Your task to perform on an android device: Go to notification settings Image 0: 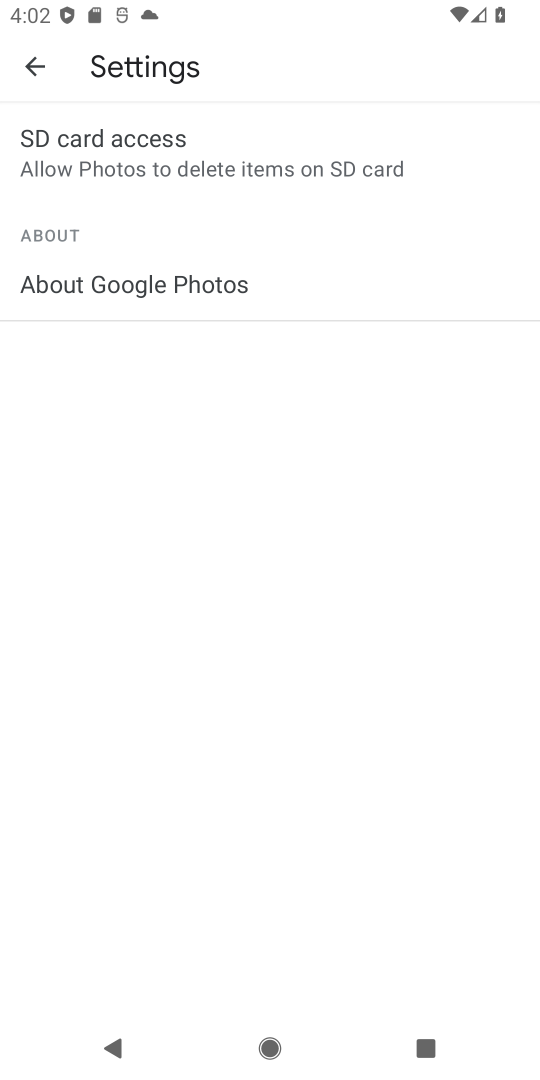
Step 0: press home button
Your task to perform on an android device: Go to notification settings Image 1: 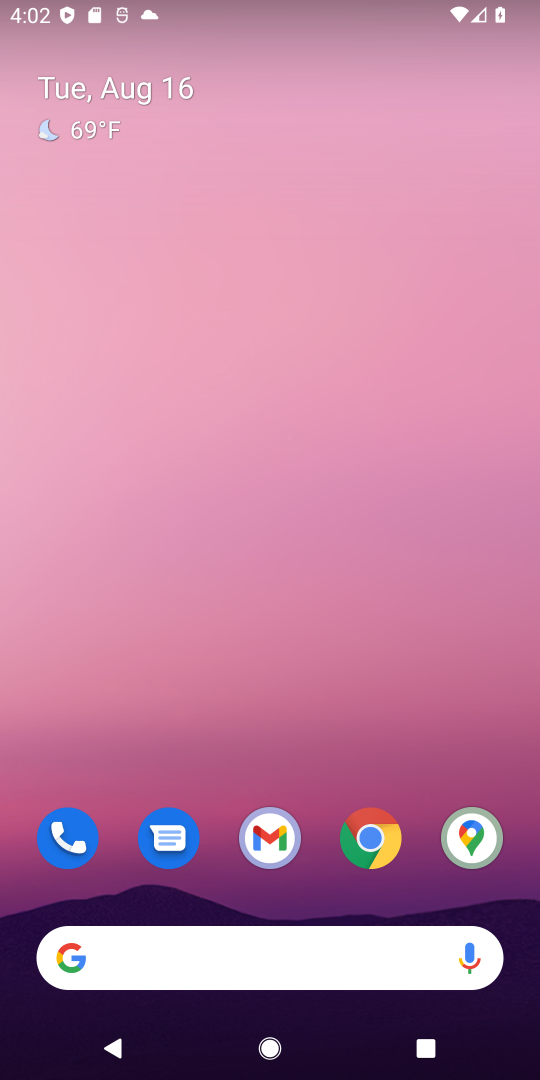
Step 1: drag from (275, 939) to (317, 14)
Your task to perform on an android device: Go to notification settings Image 2: 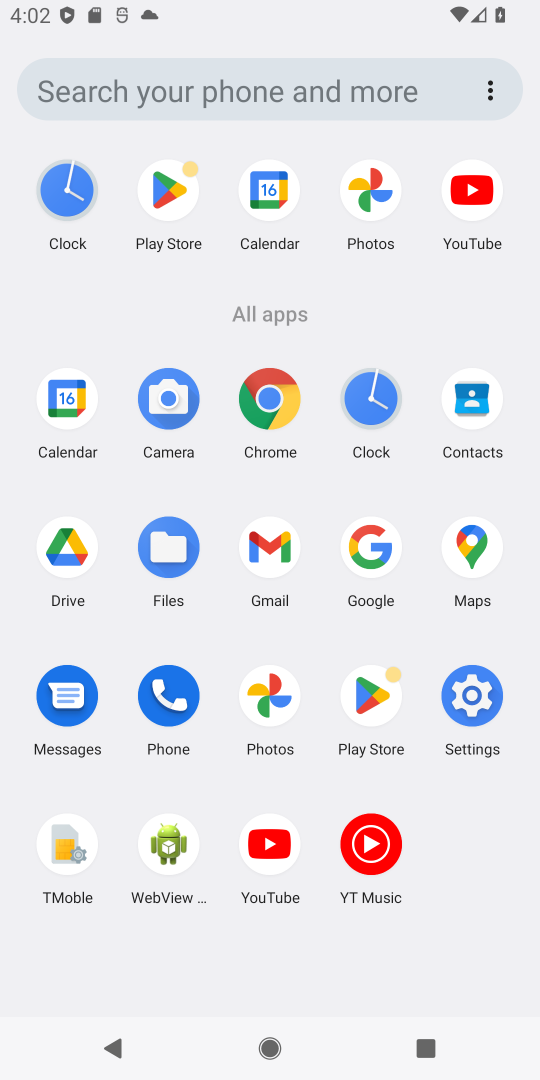
Step 2: click (472, 704)
Your task to perform on an android device: Go to notification settings Image 3: 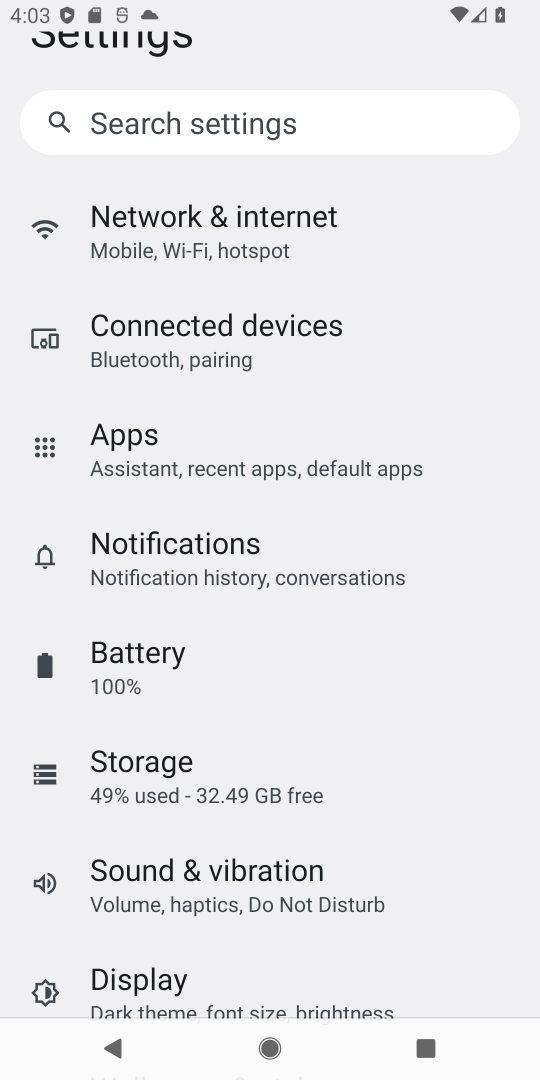
Step 3: click (266, 562)
Your task to perform on an android device: Go to notification settings Image 4: 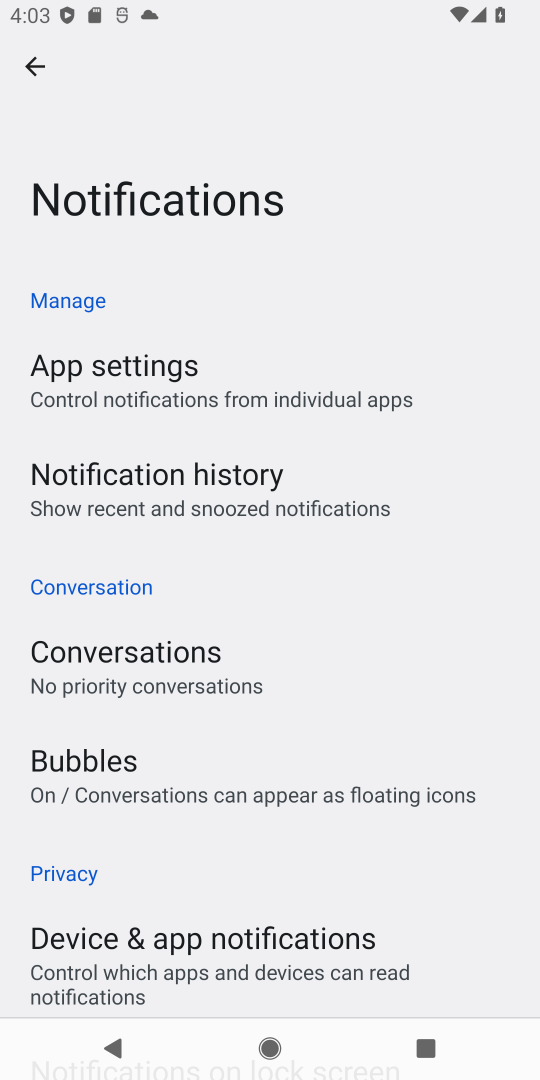
Step 4: task complete